Your task to perform on an android device: Is it going to rain today? Image 0: 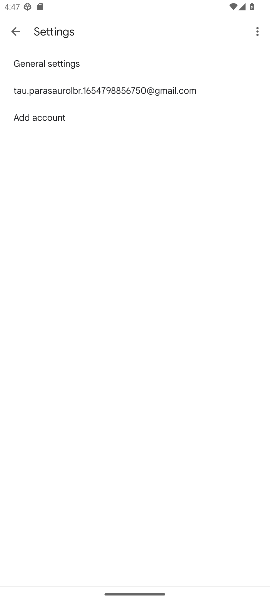
Step 0: press home button
Your task to perform on an android device: Is it going to rain today? Image 1: 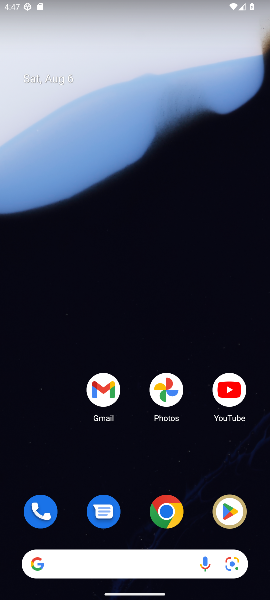
Step 1: click (170, 515)
Your task to perform on an android device: Is it going to rain today? Image 2: 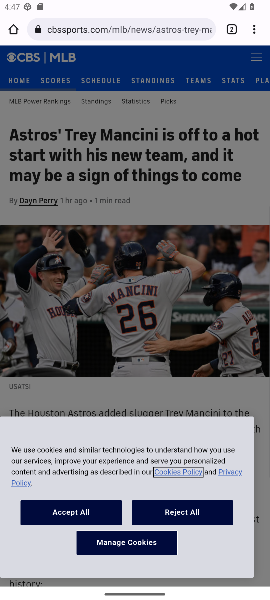
Step 2: click (128, 31)
Your task to perform on an android device: Is it going to rain today? Image 3: 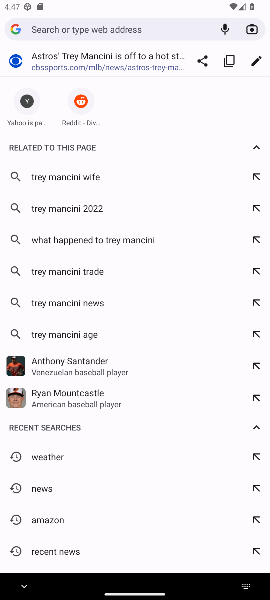
Step 3: type "weather"
Your task to perform on an android device: Is it going to rain today? Image 4: 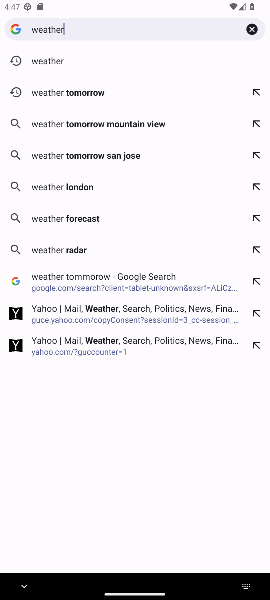
Step 4: click (43, 64)
Your task to perform on an android device: Is it going to rain today? Image 5: 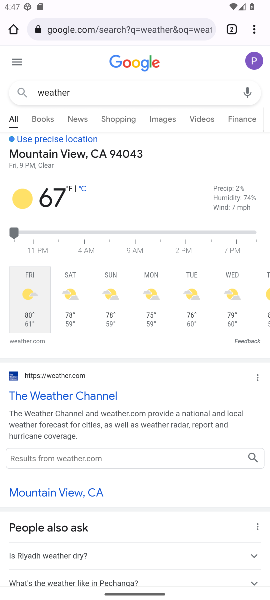
Step 5: task complete